Your task to perform on an android device: Show me recent news Image 0: 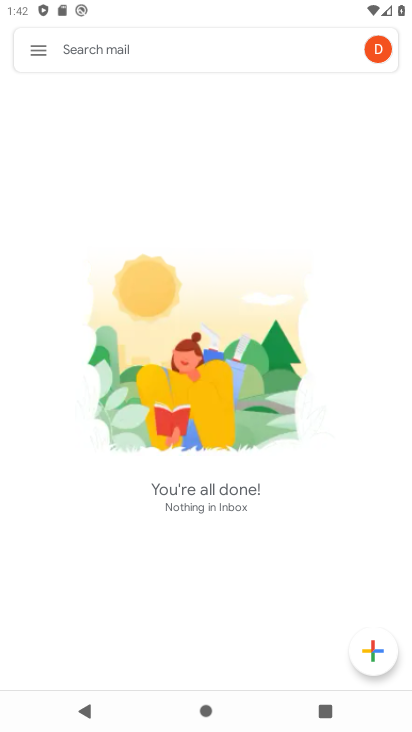
Step 0: press home button
Your task to perform on an android device: Show me recent news Image 1: 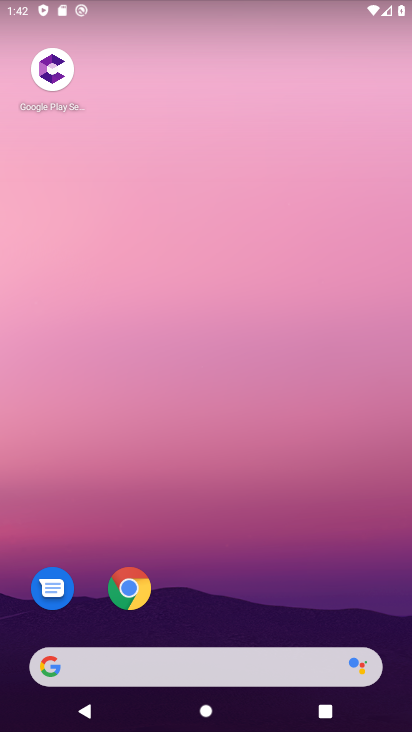
Step 1: task complete